Your task to perform on an android device: Show me recent news Image 0: 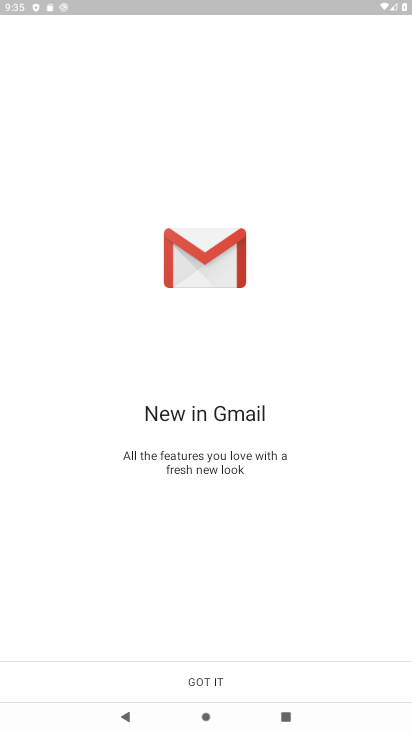
Step 0: press home button
Your task to perform on an android device: Show me recent news Image 1: 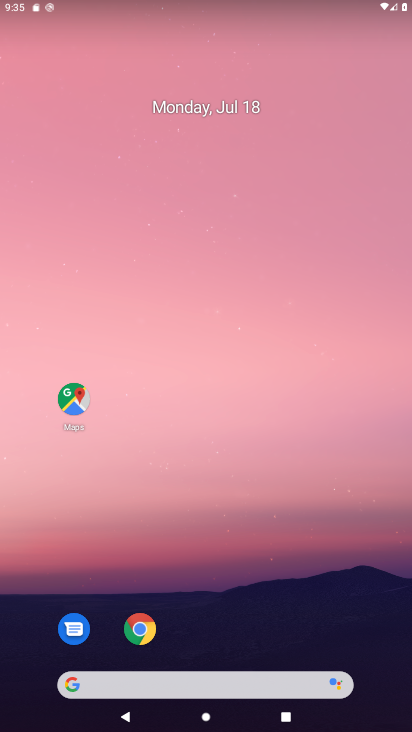
Step 1: task complete